Your task to perform on an android device: clear history in the chrome app Image 0: 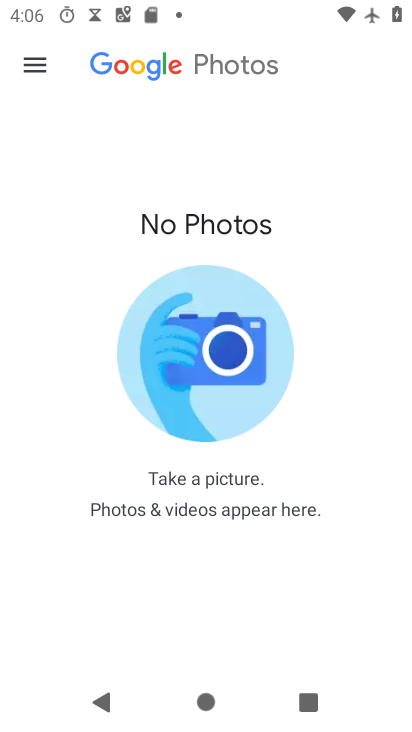
Step 0: press home button
Your task to perform on an android device: clear history in the chrome app Image 1: 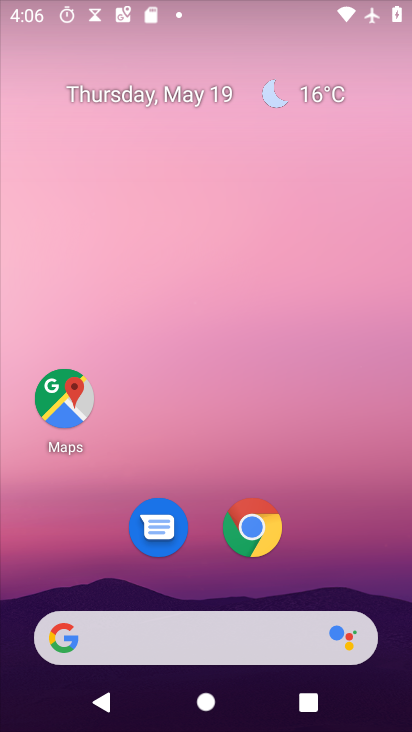
Step 1: click (266, 545)
Your task to perform on an android device: clear history in the chrome app Image 2: 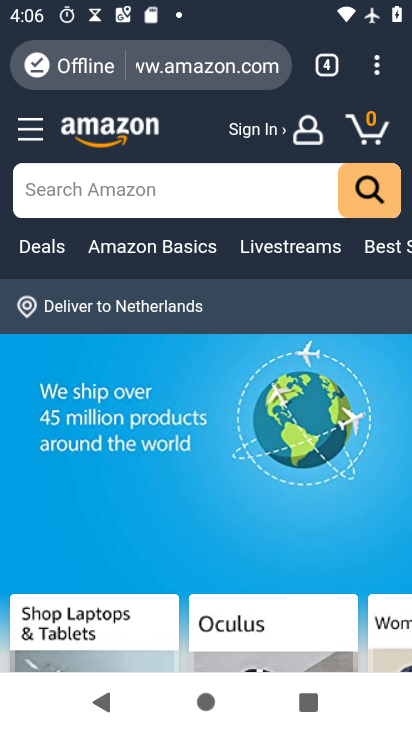
Step 2: click (383, 75)
Your task to perform on an android device: clear history in the chrome app Image 3: 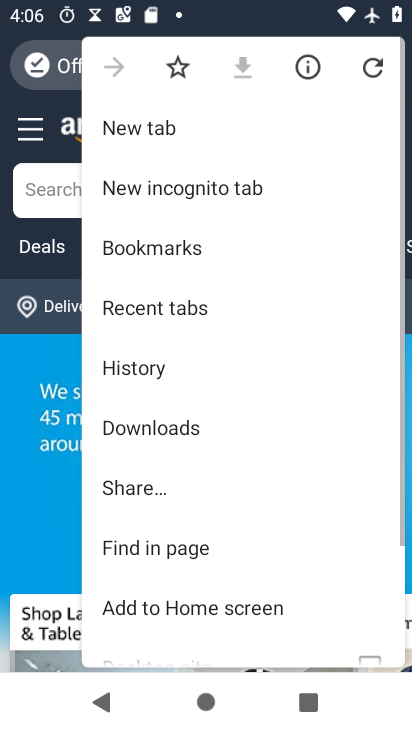
Step 3: click (167, 364)
Your task to perform on an android device: clear history in the chrome app Image 4: 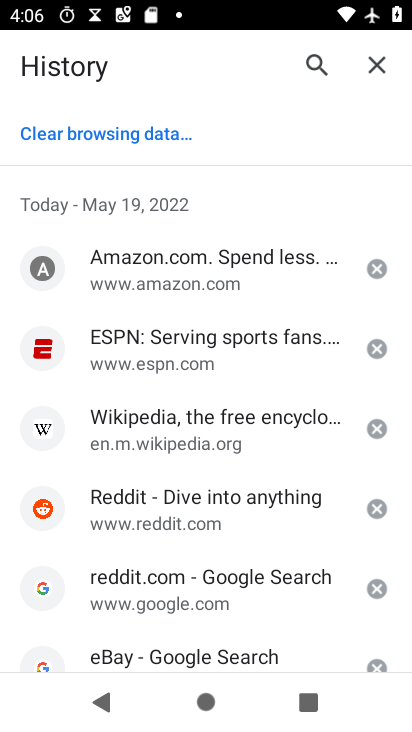
Step 4: click (98, 134)
Your task to perform on an android device: clear history in the chrome app Image 5: 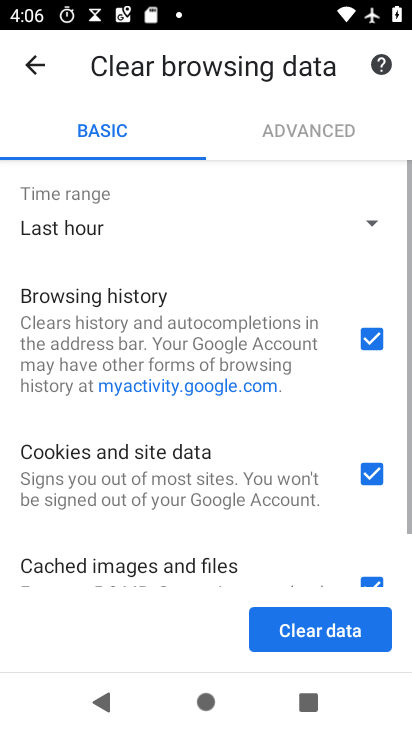
Step 5: click (338, 621)
Your task to perform on an android device: clear history in the chrome app Image 6: 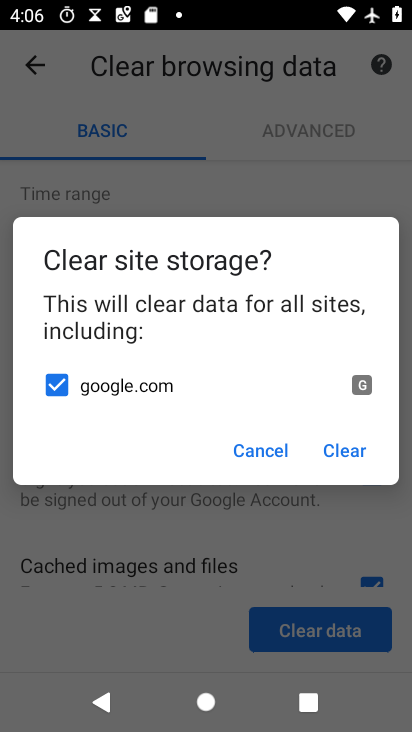
Step 6: click (357, 442)
Your task to perform on an android device: clear history in the chrome app Image 7: 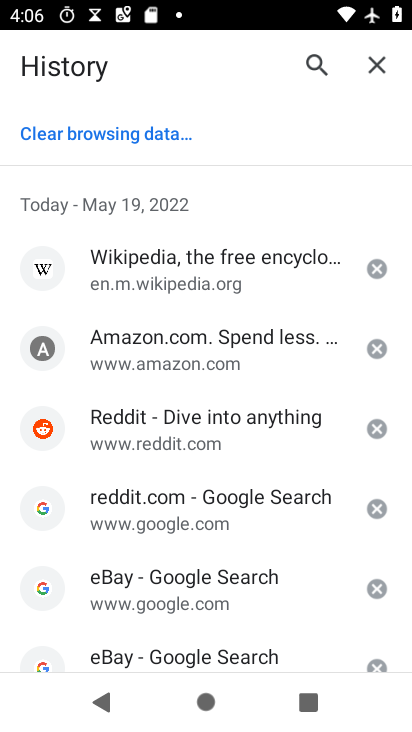
Step 7: task complete